Your task to perform on an android device: change the clock display to show seconds Image 0: 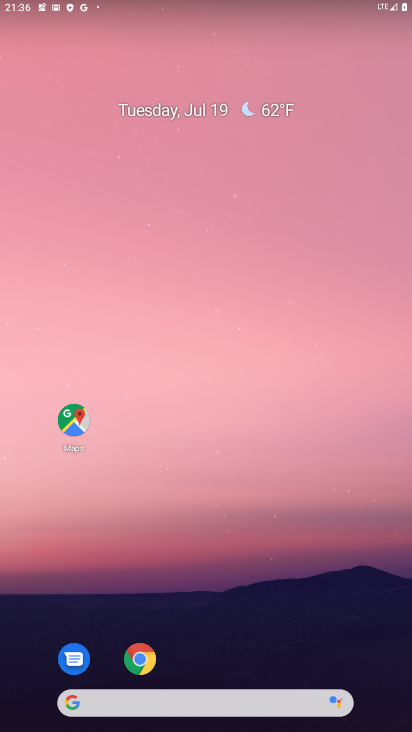
Step 0: press home button
Your task to perform on an android device: change the clock display to show seconds Image 1: 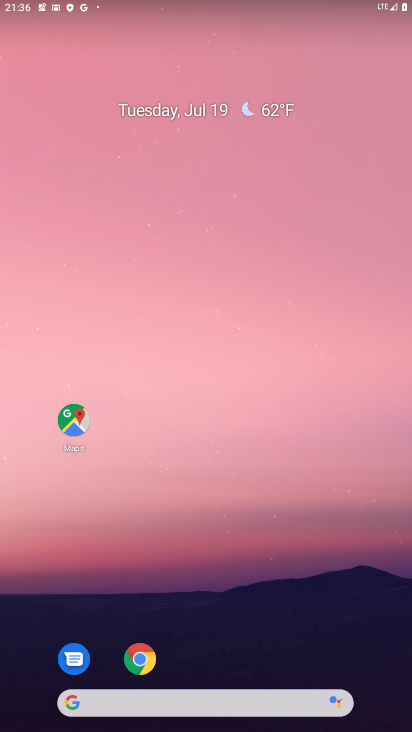
Step 1: drag from (378, 584) to (346, 346)
Your task to perform on an android device: change the clock display to show seconds Image 2: 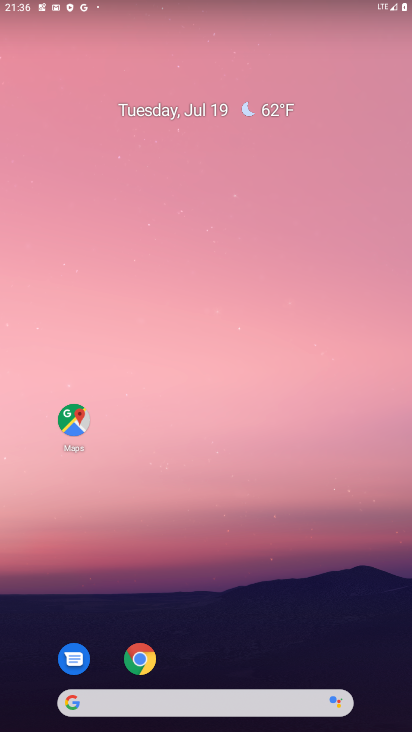
Step 2: drag from (274, 476) to (197, 147)
Your task to perform on an android device: change the clock display to show seconds Image 3: 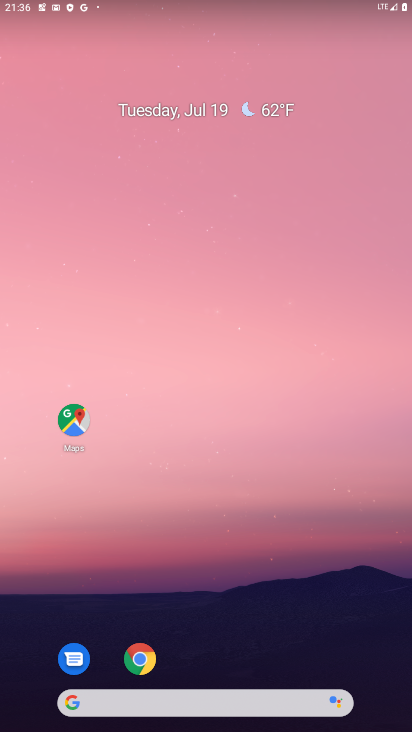
Step 3: drag from (203, 666) to (202, 91)
Your task to perform on an android device: change the clock display to show seconds Image 4: 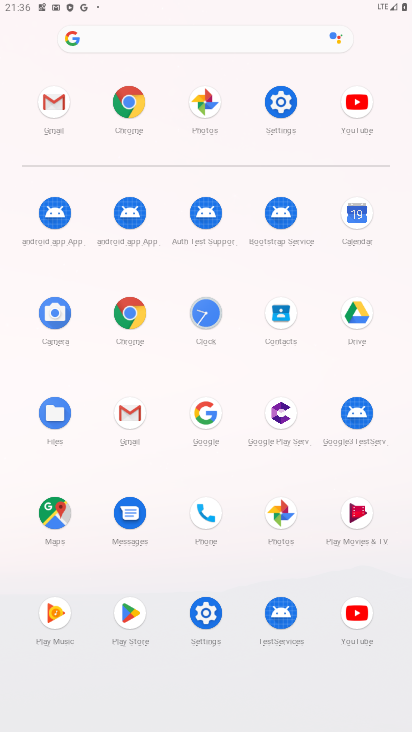
Step 4: click (213, 328)
Your task to perform on an android device: change the clock display to show seconds Image 5: 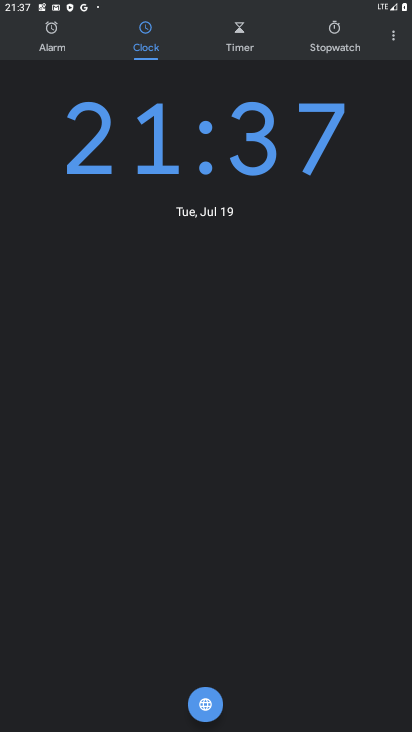
Step 5: click (394, 36)
Your task to perform on an android device: change the clock display to show seconds Image 6: 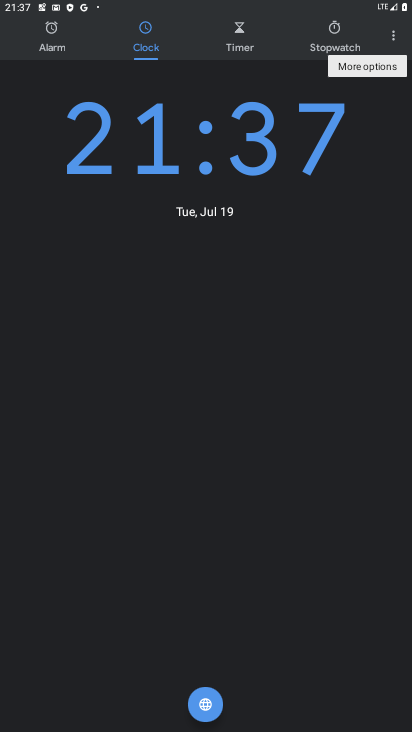
Step 6: click (394, 36)
Your task to perform on an android device: change the clock display to show seconds Image 7: 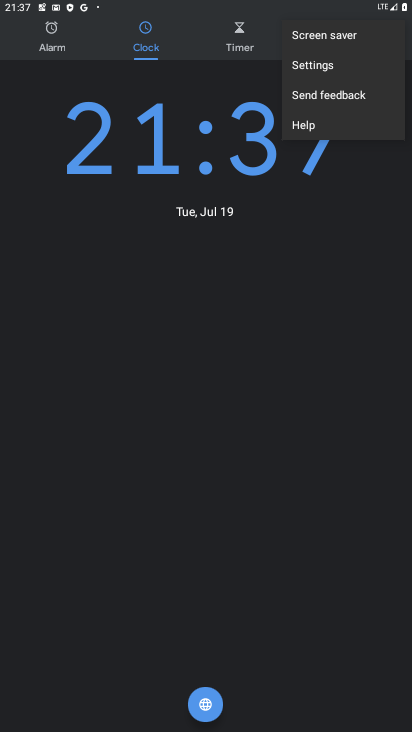
Step 7: click (319, 58)
Your task to perform on an android device: change the clock display to show seconds Image 8: 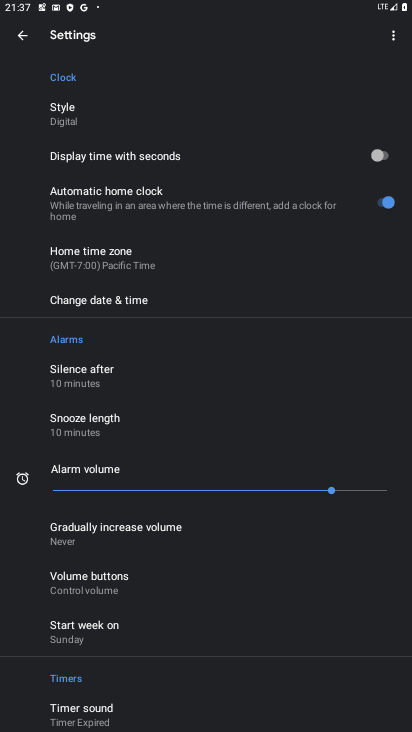
Step 8: click (21, 44)
Your task to perform on an android device: change the clock display to show seconds Image 9: 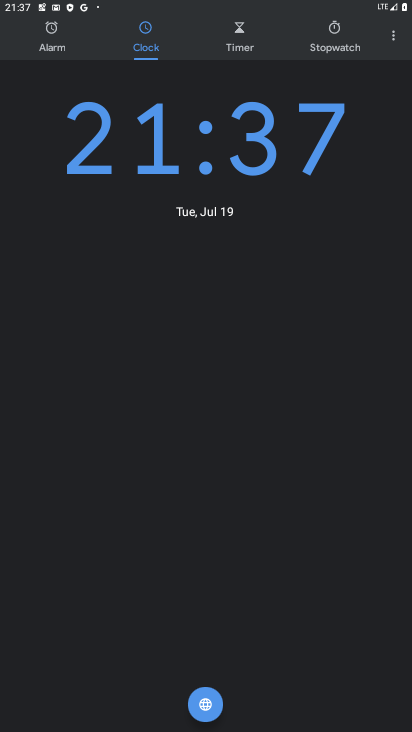
Step 9: click (392, 51)
Your task to perform on an android device: change the clock display to show seconds Image 10: 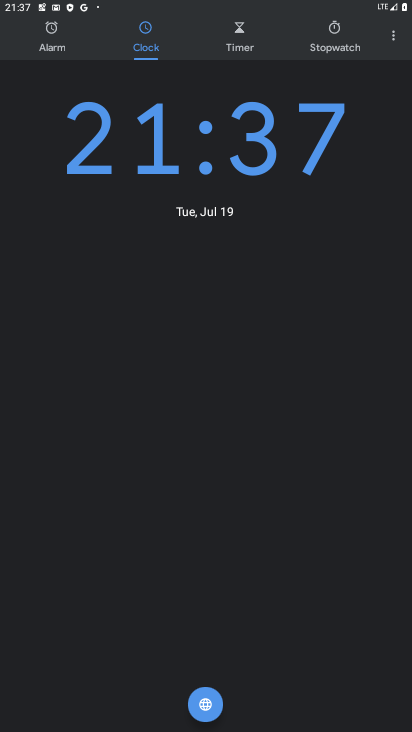
Step 10: click (390, 44)
Your task to perform on an android device: change the clock display to show seconds Image 11: 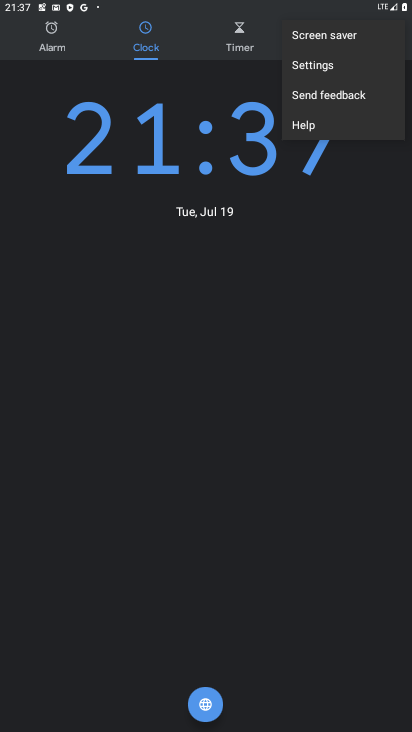
Step 11: click (339, 63)
Your task to perform on an android device: change the clock display to show seconds Image 12: 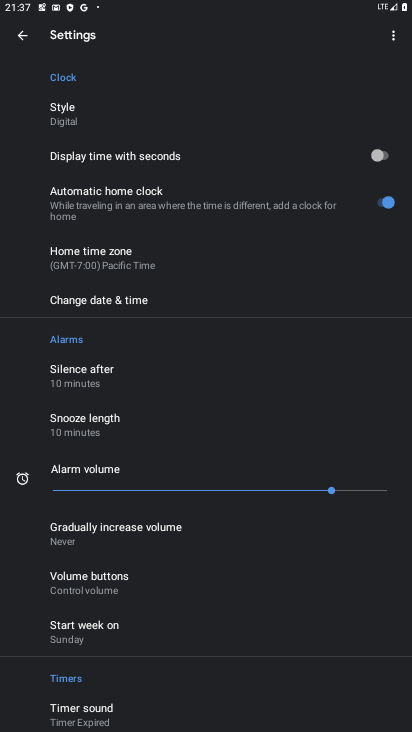
Step 12: click (339, 160)
Your task to perform on an android device: change the clock display to show seconds Image 13: 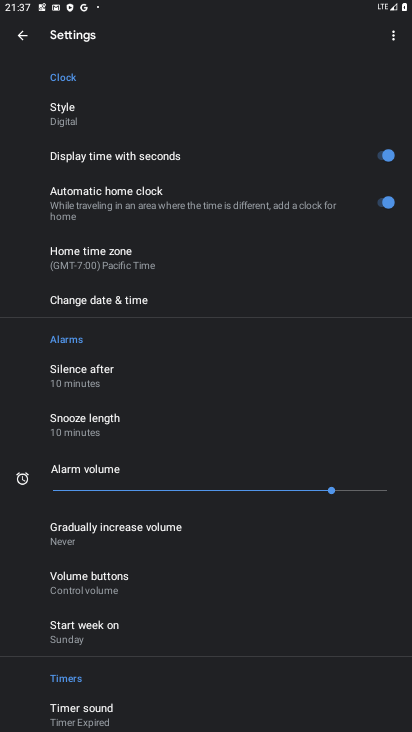
Step 13: task complete